Your task to perform on an android device: Go to eBay Image 0: 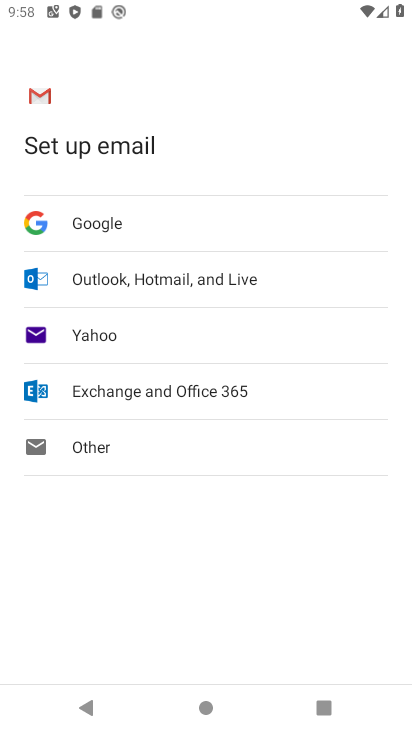
Step 0: press home button
Your task to perform on an android device: Go to eBay Image 1: 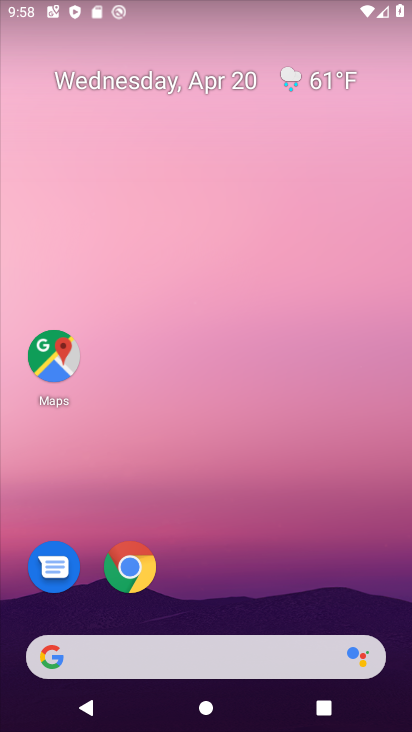
Step 1: click (196, 648)
Your task to perform on an android device: Go to eBay Image 2: 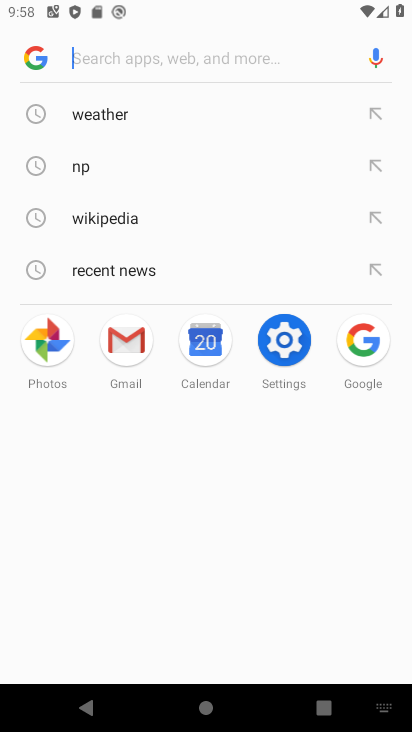
Step 2: type "eBay"
Your task to perform on an android device: Go to eBay Image 3: 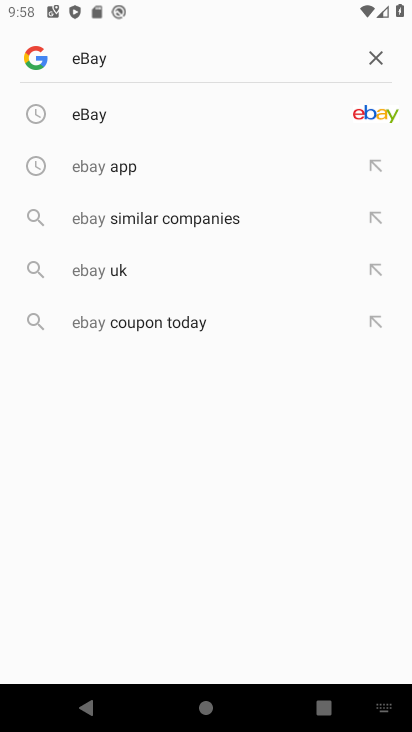
Step 3: click (111, 119)
Your task to perform on an android device: Go to eBay Image 4: 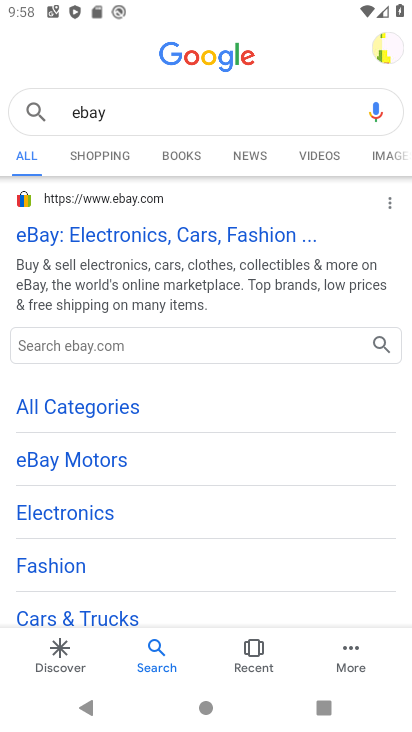
Step 4: click (131, 235)
Your task to perform on an android device: Go to eBay Image 5: 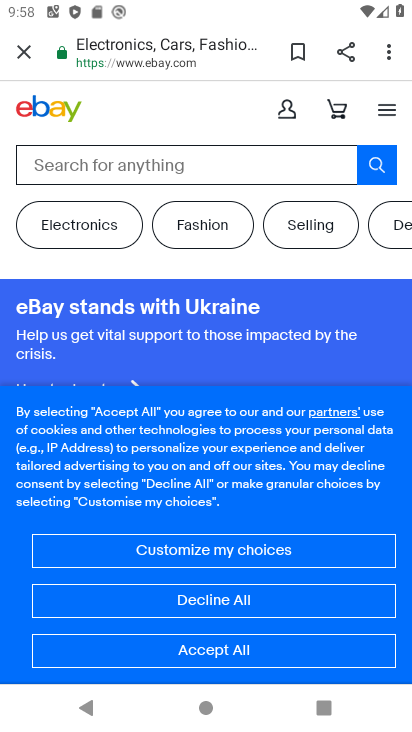
Step 5: task complete